Your task to perform on an android device: Open maps Image 0: 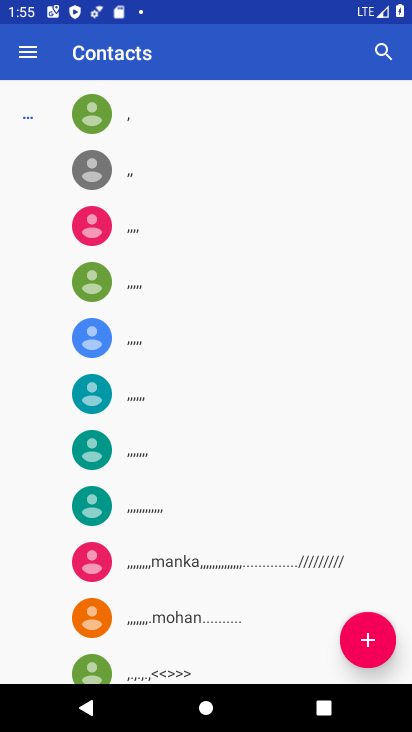
Step 0: press home button
Your task to perform on an android device: Open maps Image 1: 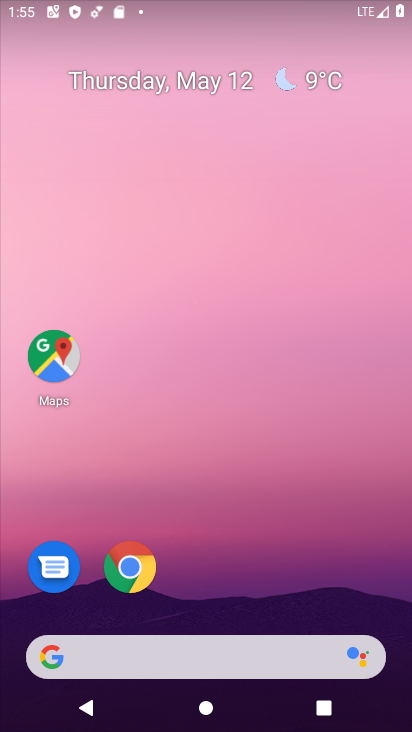
Step 1: click (45, 380)
Your task to perform on an android device: Open maps Image 2: 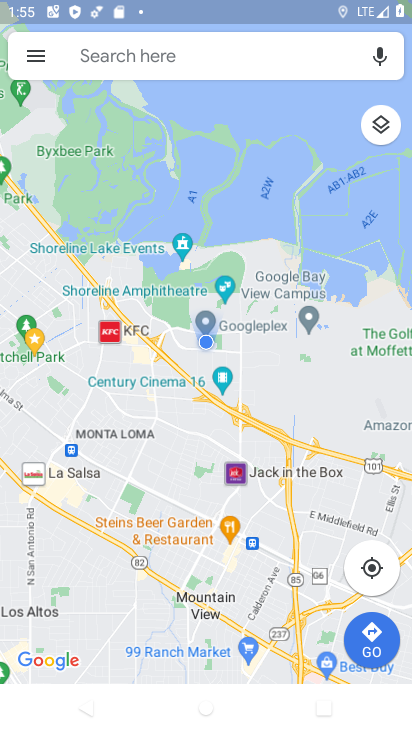
Step 2: task complete